Your task to perform on an android device: uninstall "Facebook Messenger" Image 0: 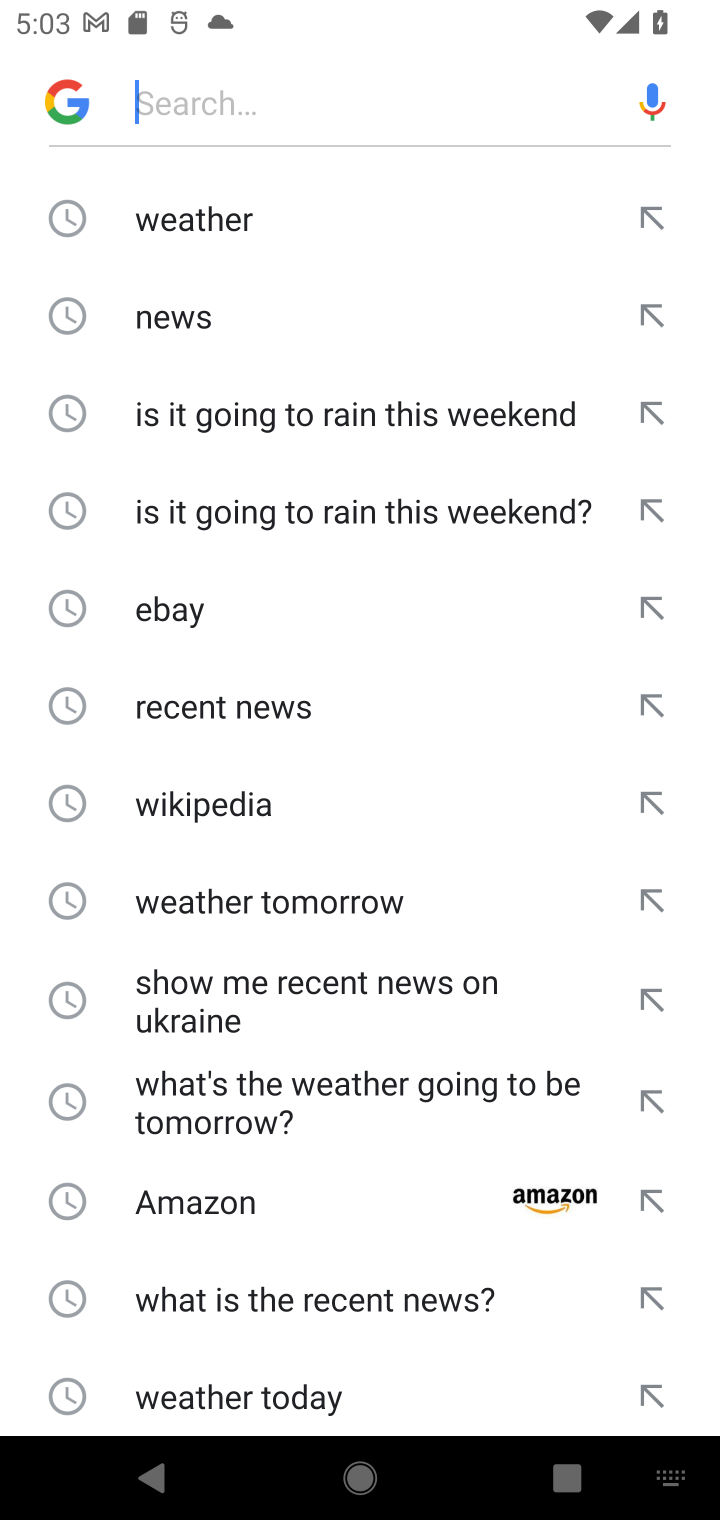
Step 0: press home button
Your task to perform on an android device: uninstall "Facebook Messenger" Image 1: 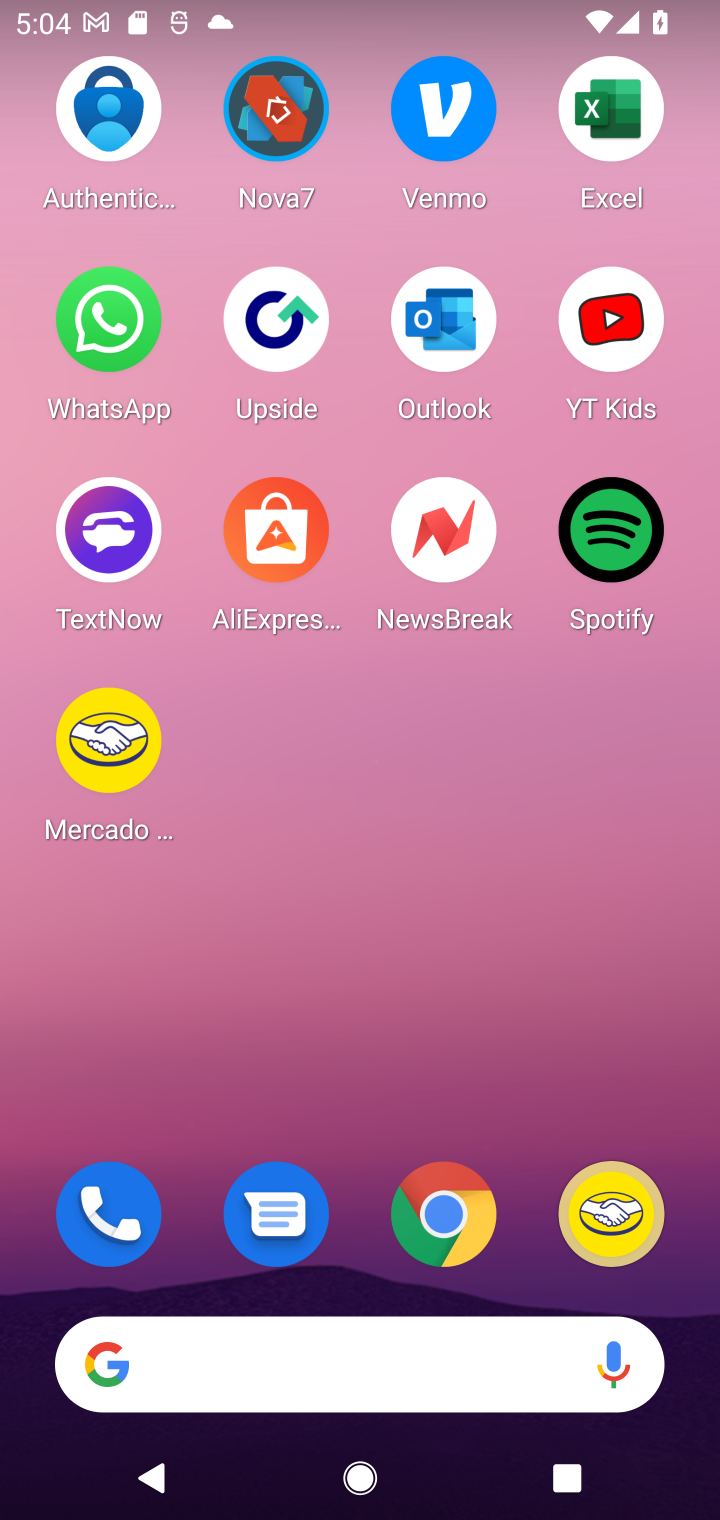
Step 1: drag from (345, 1268) to (420, 6)
Your task to perform on an android device: uninstall "Facebook Messenger" Image 2: 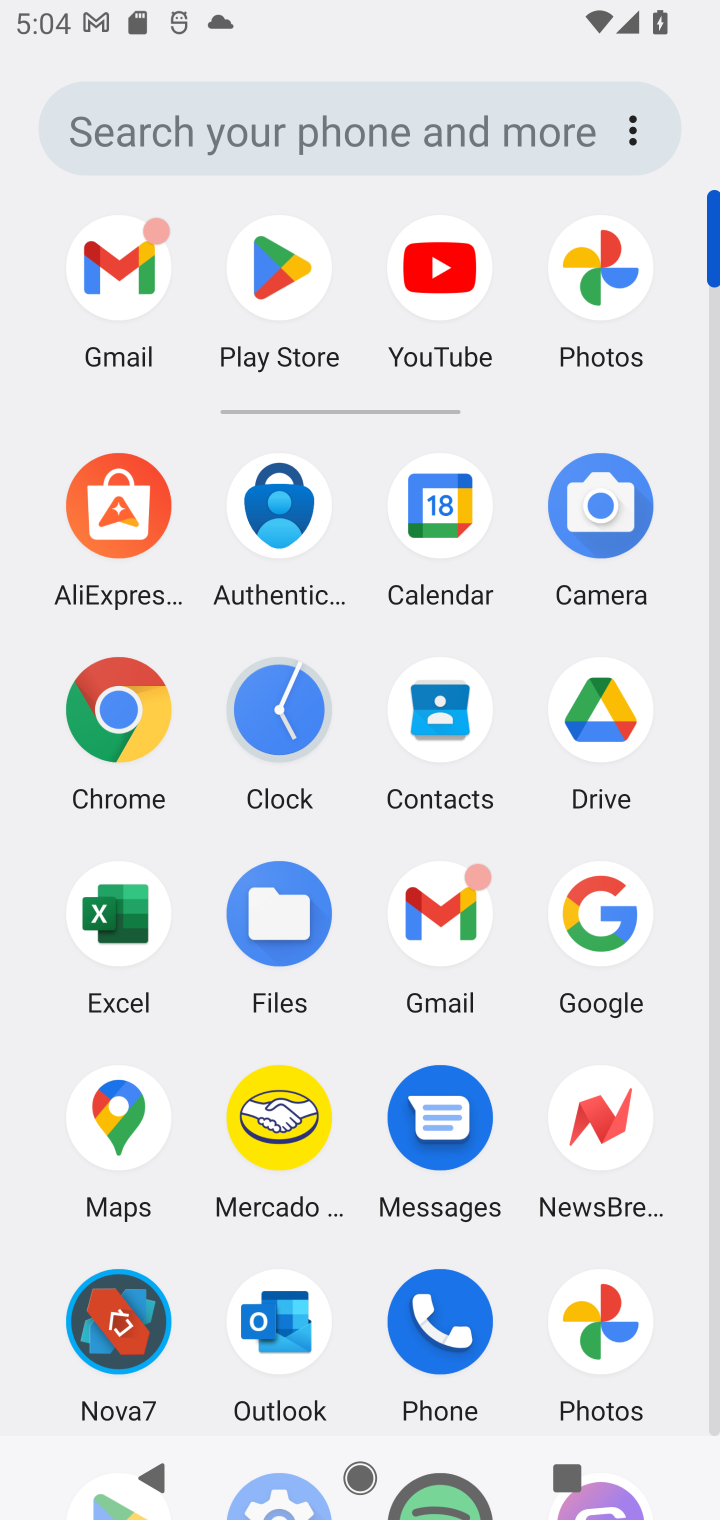
Step 2: click (285, 296)
Your task to perform on an android device: uninstall "Facebook Messenger" Image 3: 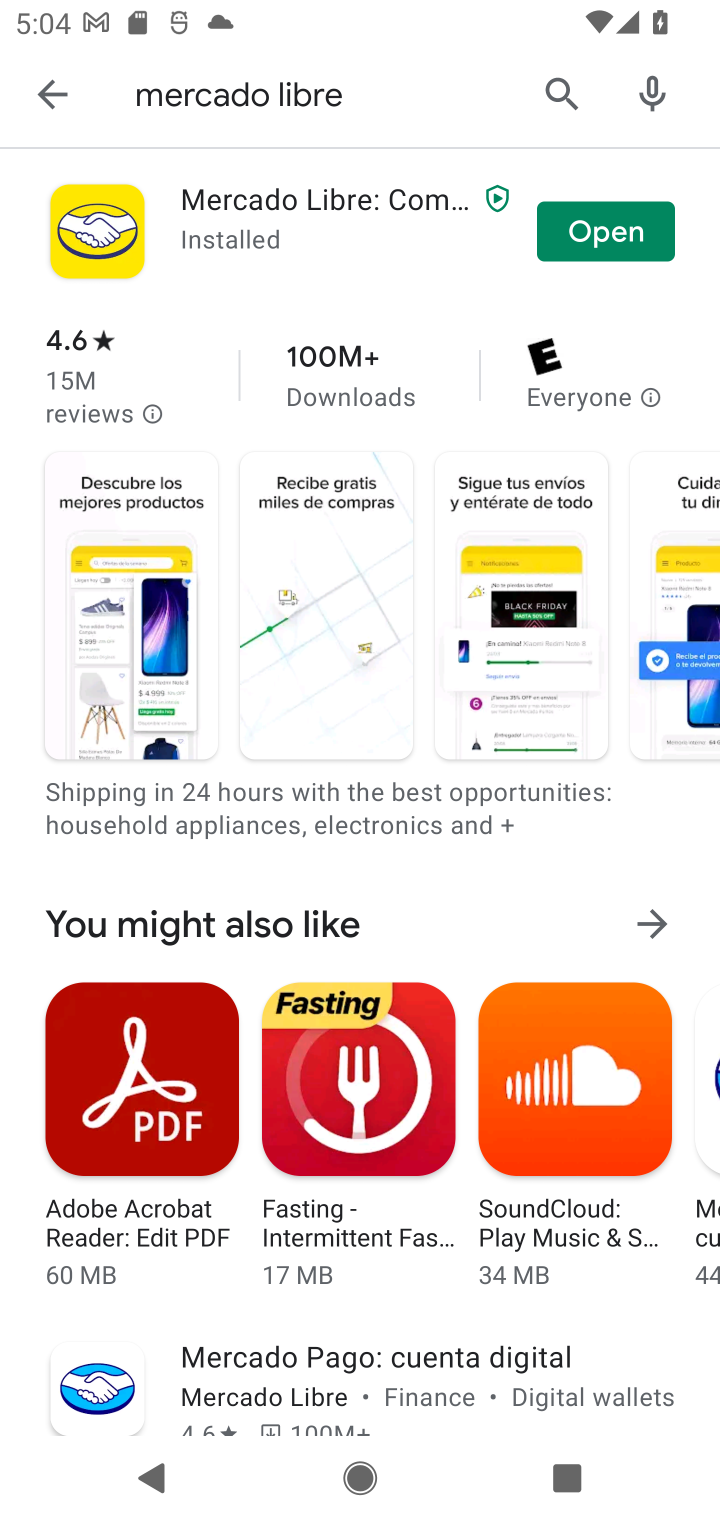
Step 3: click (360, 94)
Your task to perform on an android device: uninstall "Facebook Messenger" Image 4: 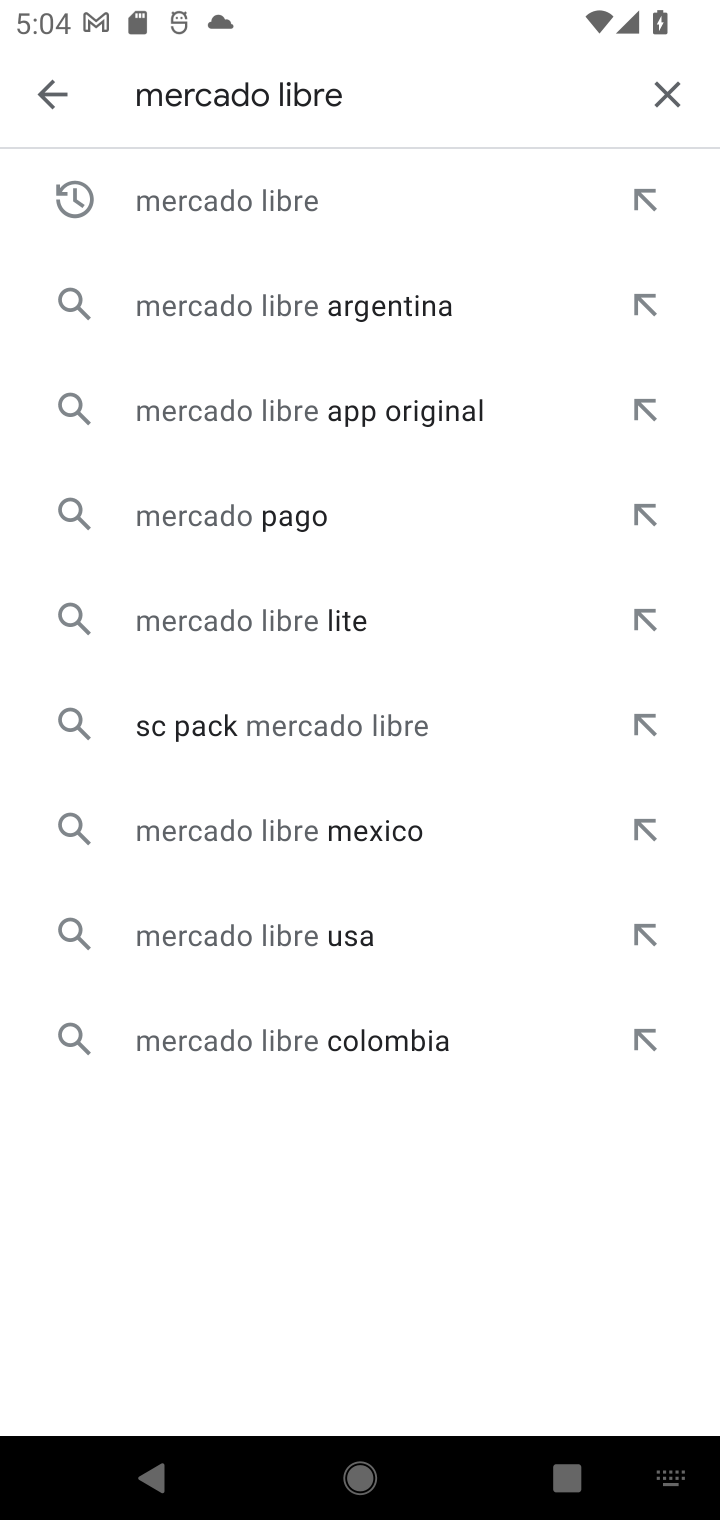
Step 4: click (659, 93)
Your task to perform on an android device: uninstall "Facebook Messenger" Image 5: 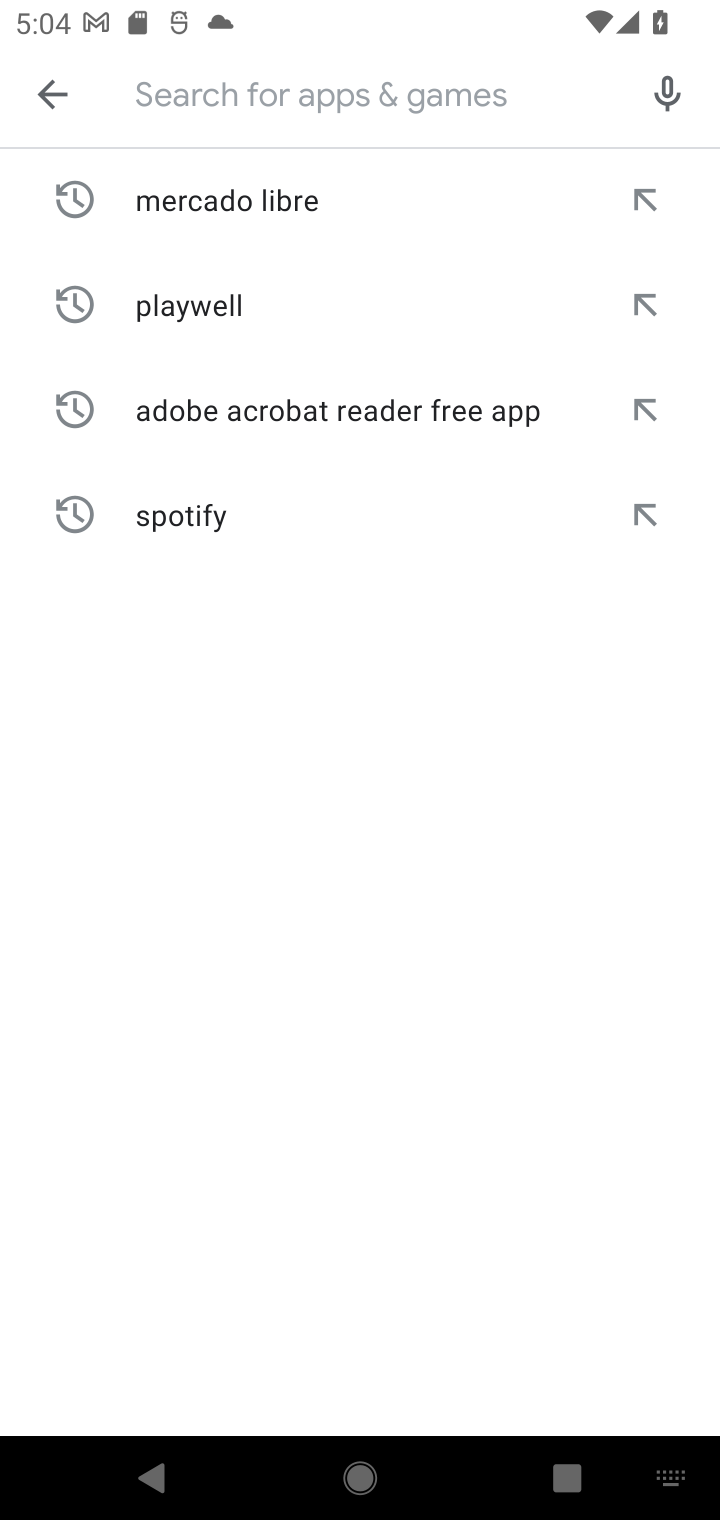
Step 5: type "facebook messenger"
Your task to perform on an android device: uninstall "Facebook Messenger" Image 6: 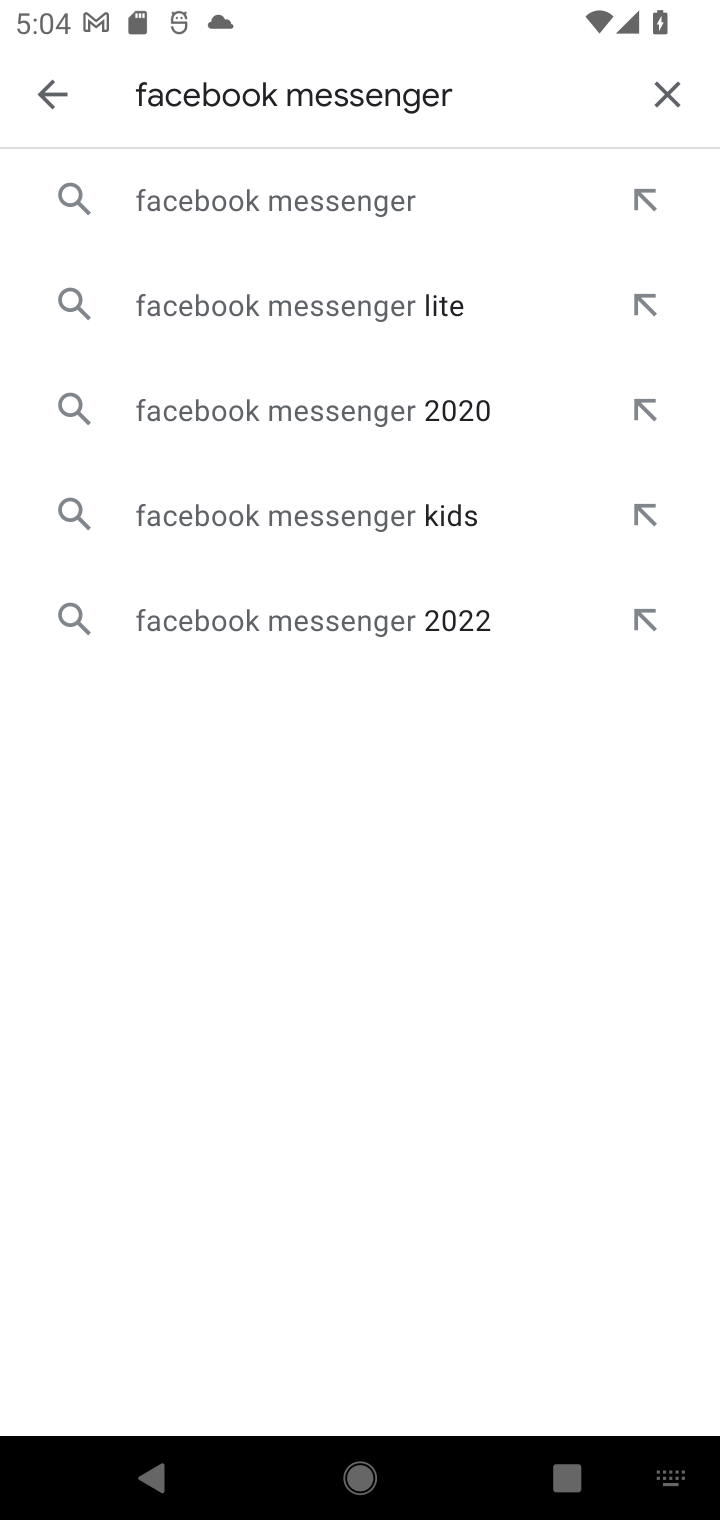
Step 6: click (336, 205)
Your task to perform on an android device: uninstall "Facebook Messenger" Image 7: 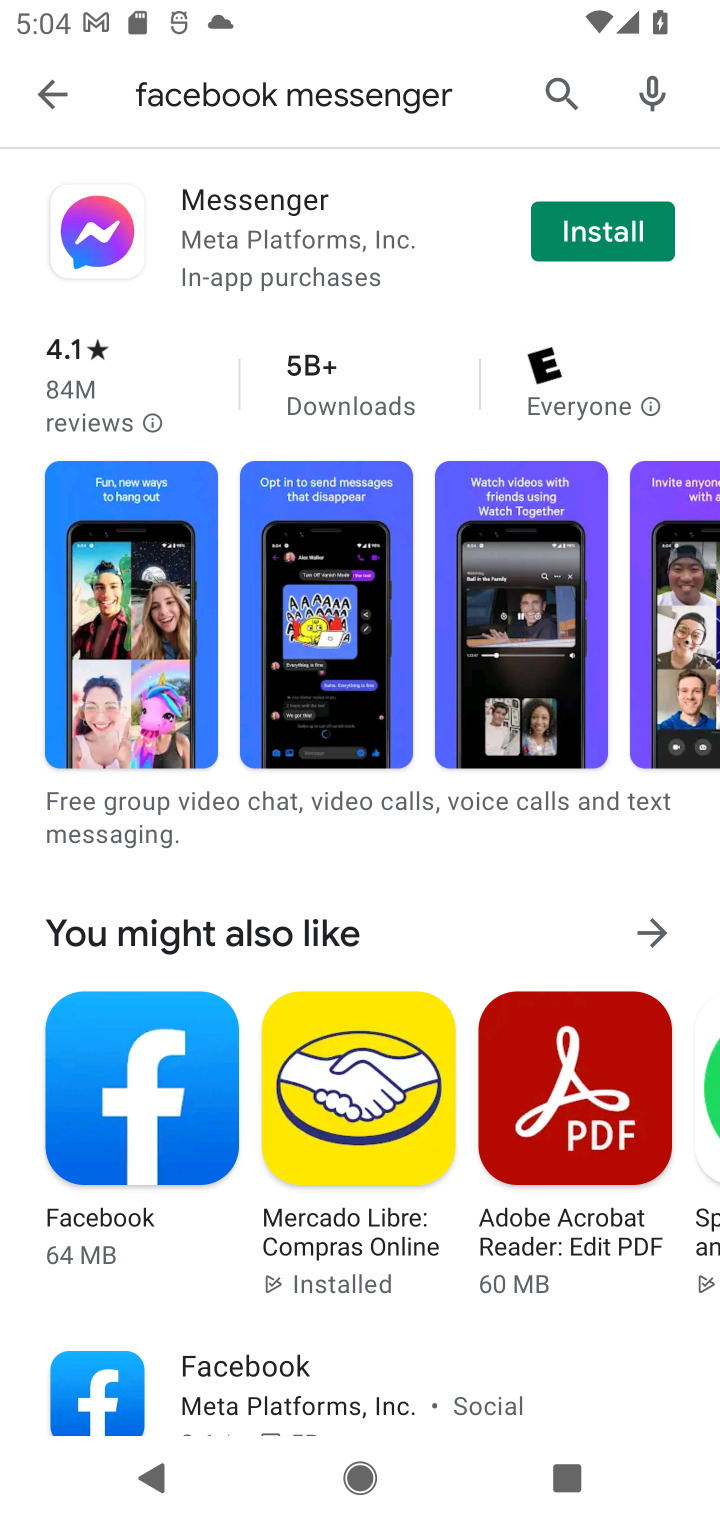
Step 7: task complete